Your task to perform on an android device: change the clock style Image 0: 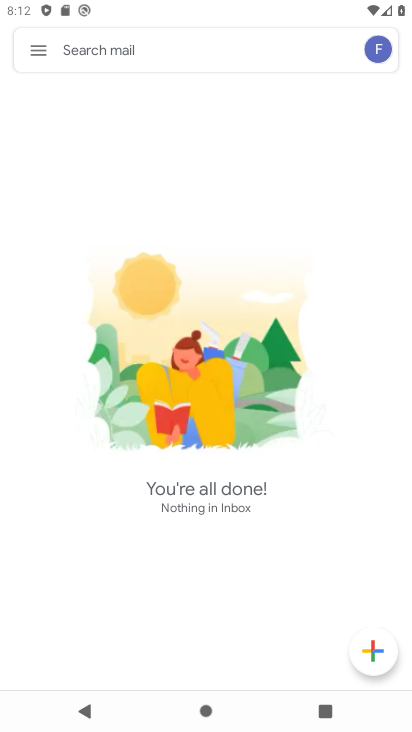
Step 0: press home button
Your task to perform on an android device: change the clock style Image 1: 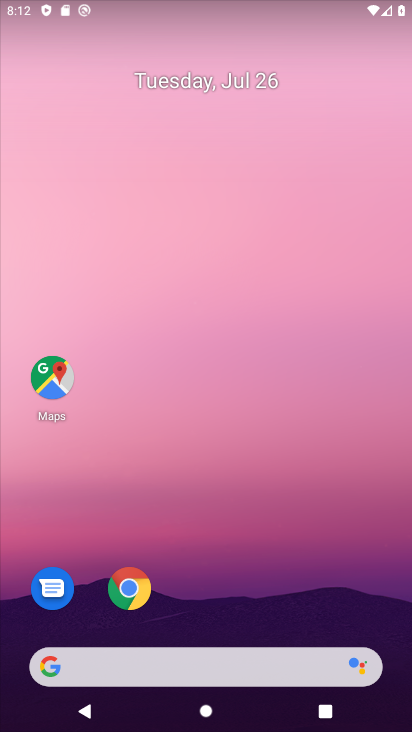
Step 1: drag from (228, 642) to (214, 40)
Your task to perform on an android device: change the clock style Image 2: 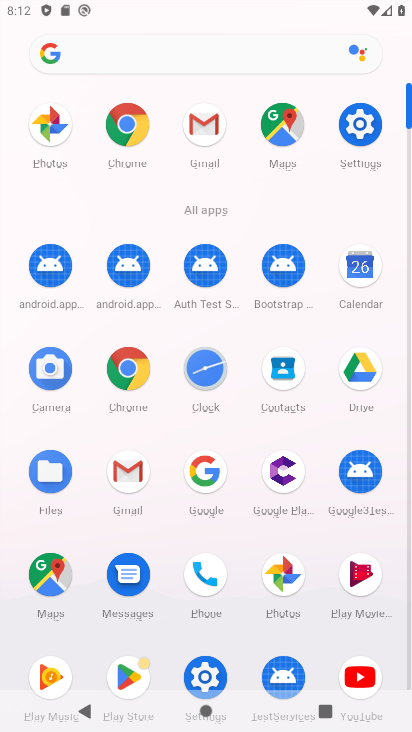
Step 2: click (205, 374)
Your task to perform on an android device: change the clock style Image 3: 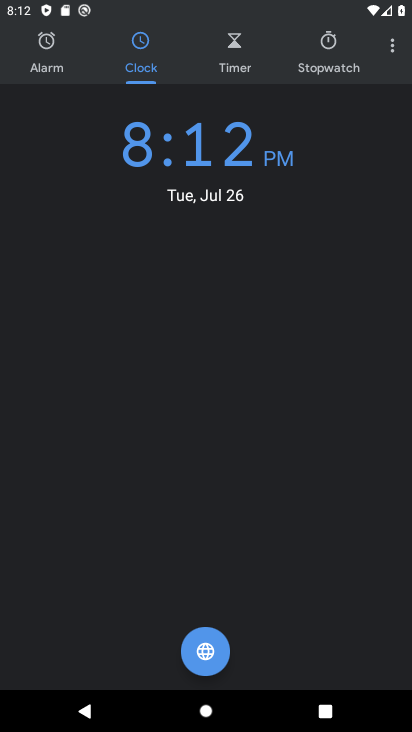
Step 3: click (392, 47)
Your task to perform on an android device: change the clock style Image 4: 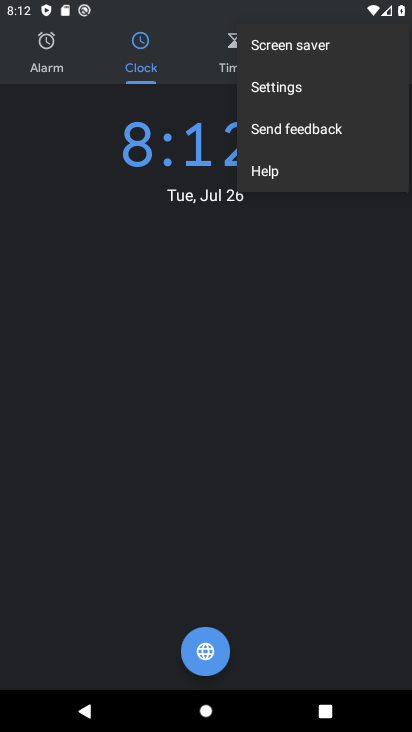
Step 4: click (306, 95)
Your task to perform on an android device: change the clock style Image 5: 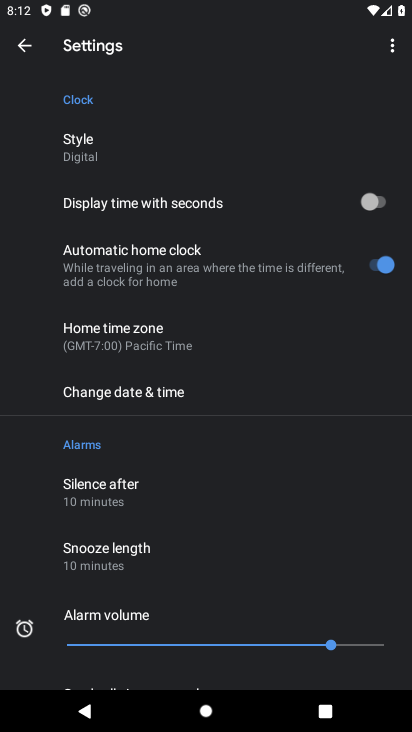
Step 5: click (76, 157)
Your task to perform on an android device: change the clock style Image 6: 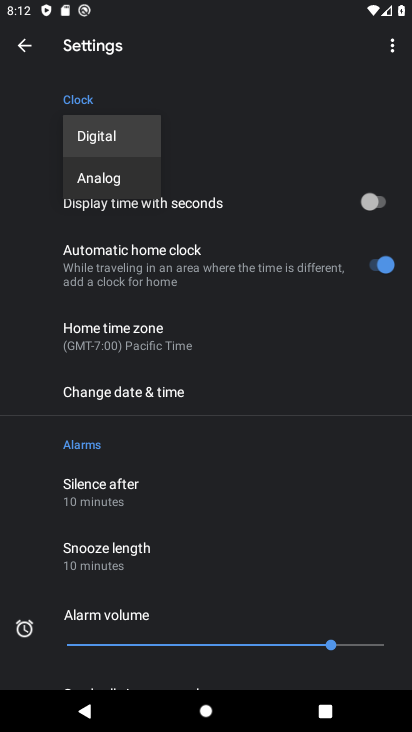
Step 6: click (77, 182)
Your task to perform on an android device: change the clock style Image 7: 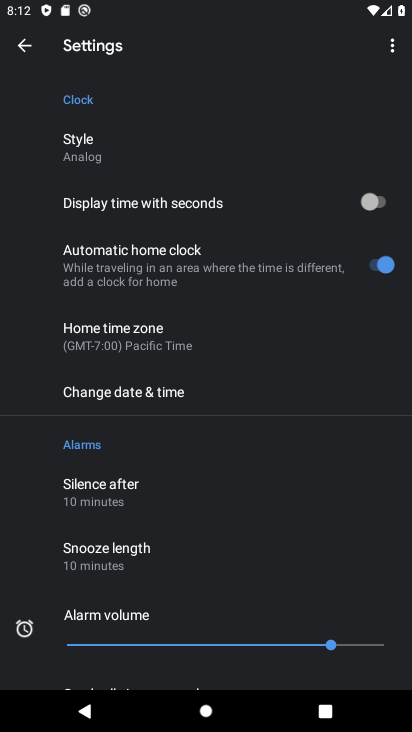
Step 7: task complete